Your task to perform on an android device: Search for vegetarian restaurants on Maps Image 0: 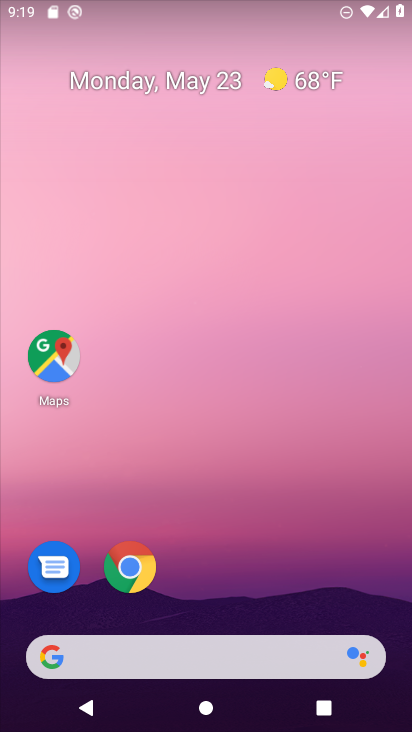
Step 0: drag from (190, 622) to (402, 578)
Your task to perform on an android device: Search for vegetarian restaurants on Maps Image 1: 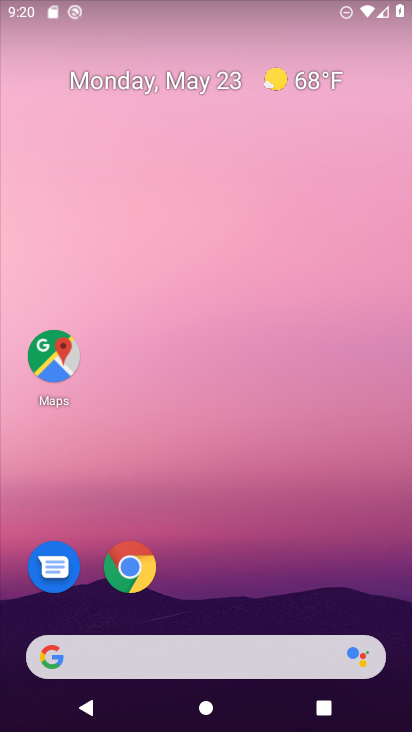
Step 1: drag from (238, 661) to (282, 34)
Your task to perform on an android device: Search for vegetarian restaurants on Maps Image 2: 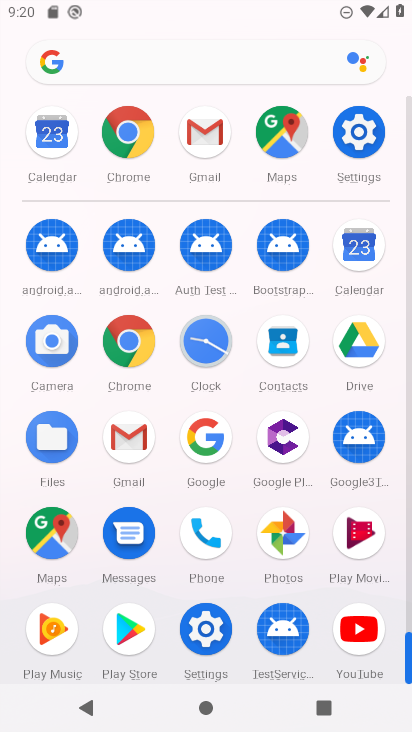
Step 2: click (44, 538)
Your task to perform on an android device: Search for vegetarian restaurants on Maps Image 3: 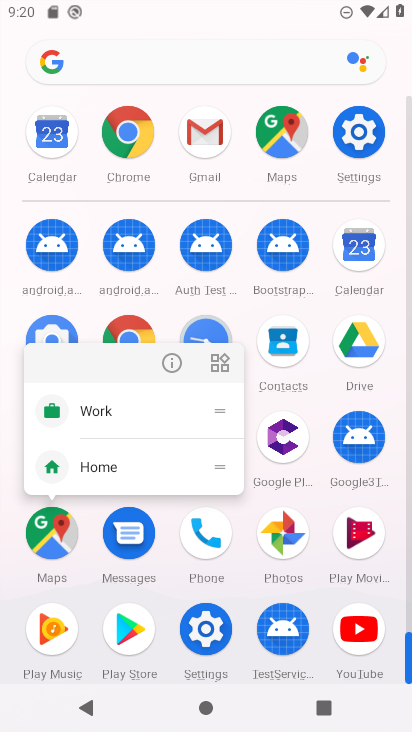
Step 3: click (161, 361)
Your task to perform on an android device: Search for vegetarian restaurants on Maps Image 4: 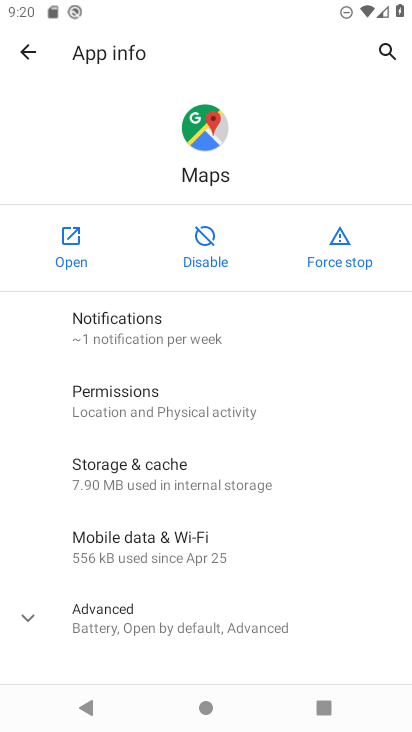
Step 4: click (86, 241)
Your task to perform on an android device: Search for vegetarian restaurants on Maps Image 5: 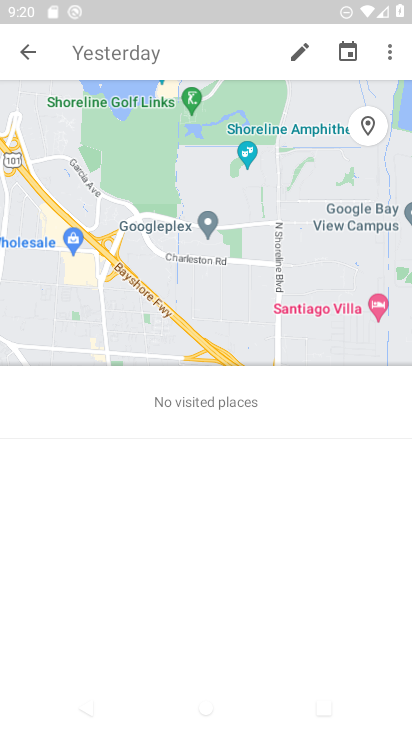
Step 5: click (352, 95)
Your task to perform on an android device: Search for vegetarian restaurants on Maps Image 6: 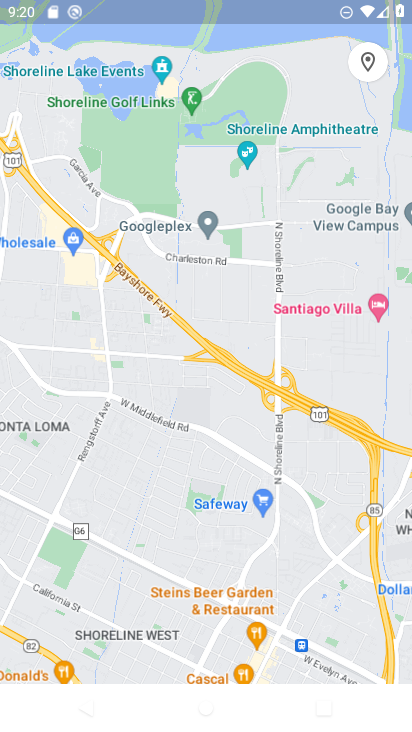
Step 6: drag from (265, 153) to (284, 477)
Your task to perform on an android device: Search for vegetarian restaurants on Maps Image 7: 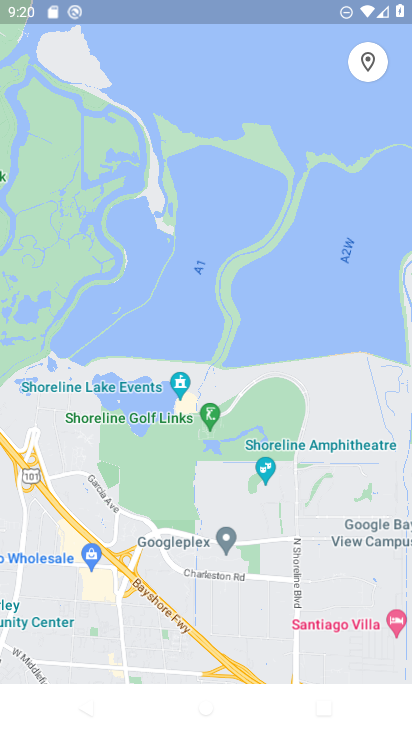
Step 7: press back button
Your task to perform on an android device: Search for vegetarian restaurants on Maps Image 8: 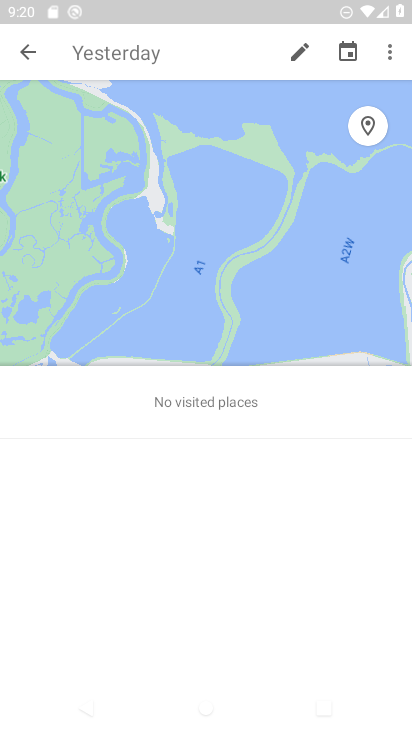
Step 8: click (25, 56)
Your task to perform on an android device: Search for vegetarian restaurants on Maps Image 9: 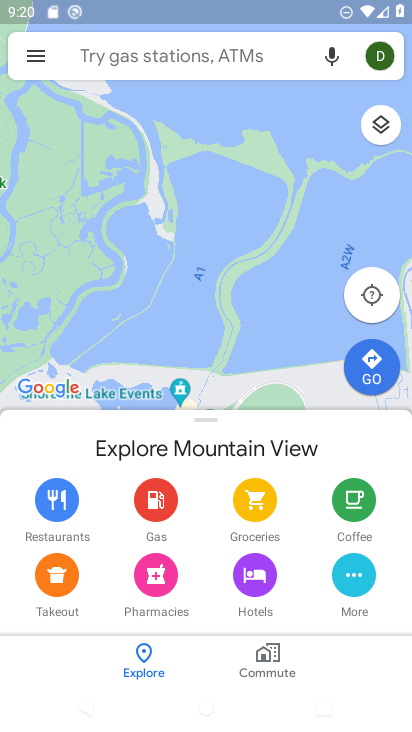
Step 9: click (82, 59)
Your task to perform on an android device: Search for vegetarian restaurants on Maps Image 10: 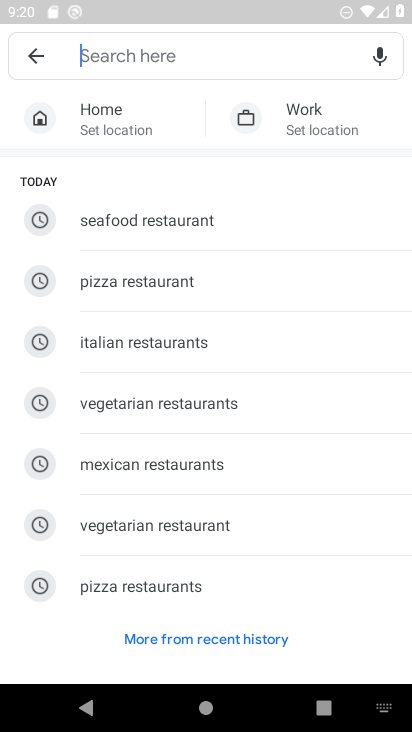
Step 10: click (143, 400)
Your task to perform on an android device: Search for vegetarian restaurants on Maps Image 11: 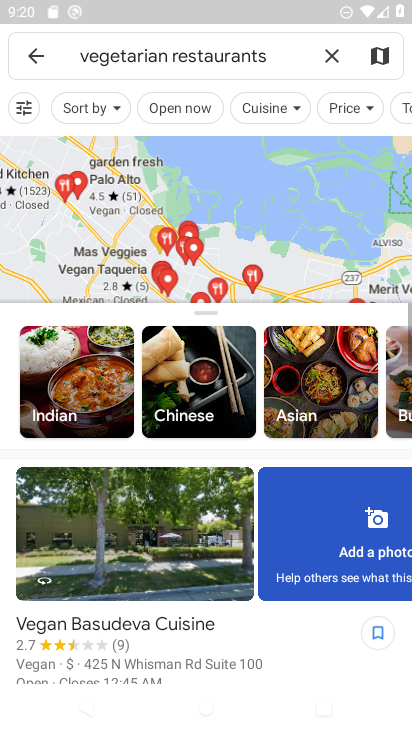
Step 11: task complete